Your task to perform on an android device: open app "Mercado Libre" Image 0: 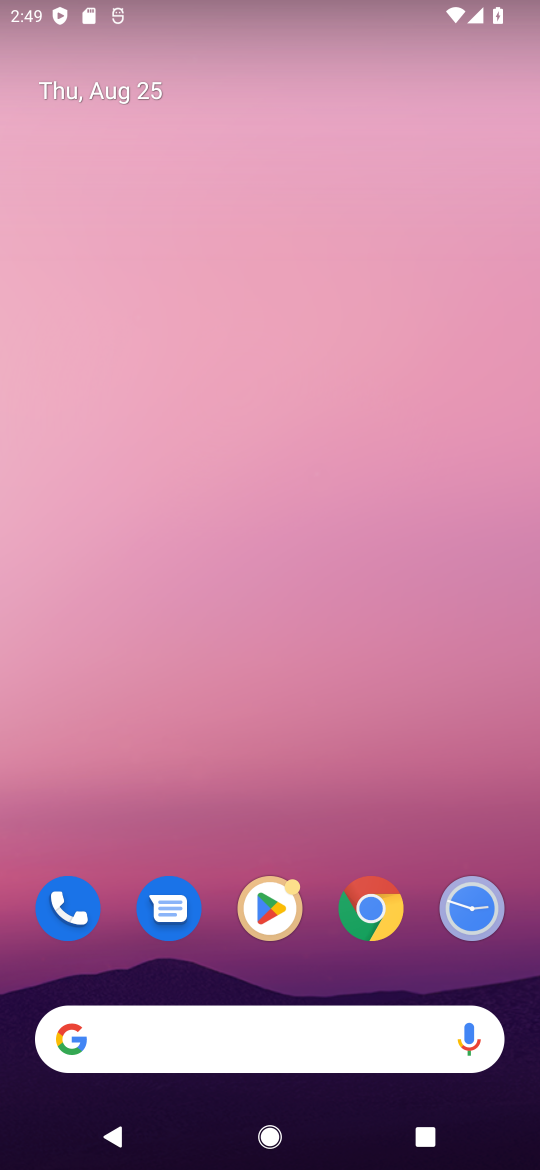
Step 0: click (271, 892)
Your task to perform on an android device: open app "Mercado Libre" Image 1: 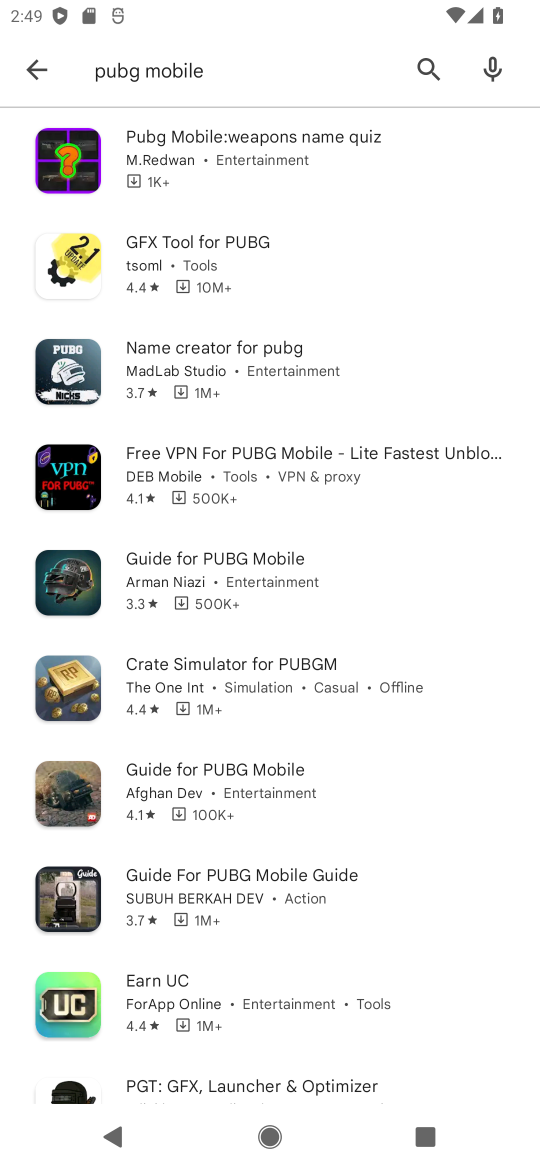
Step 1: click (419, 78)
Your task to perform on an android device: open app "Mercado Libre" Image 2: 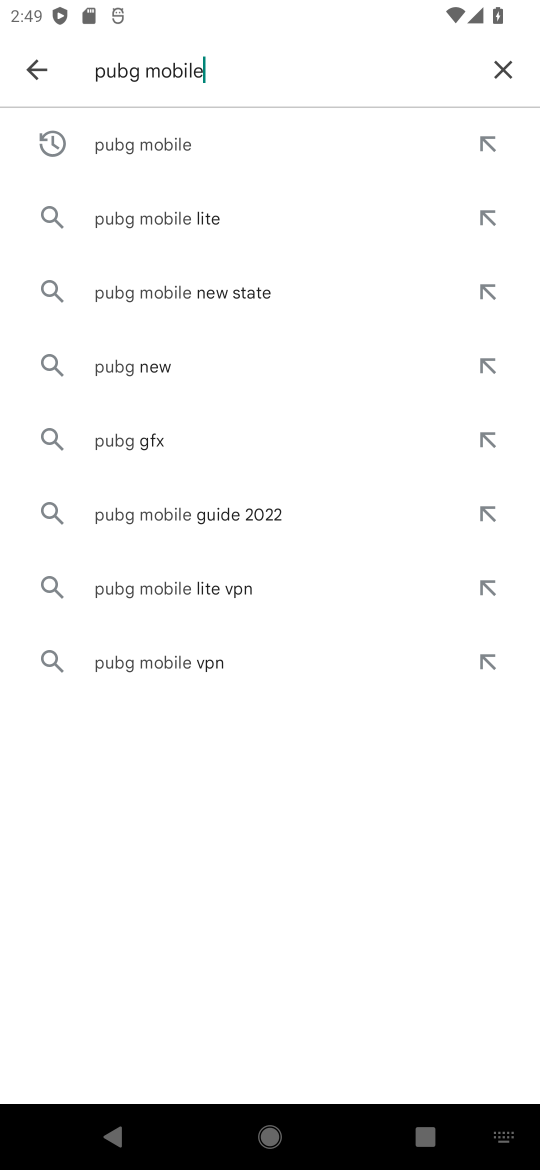
Step 2: click (493, 61)
Your task to perform on an android device: open app "Mercado Libre" Image 3: 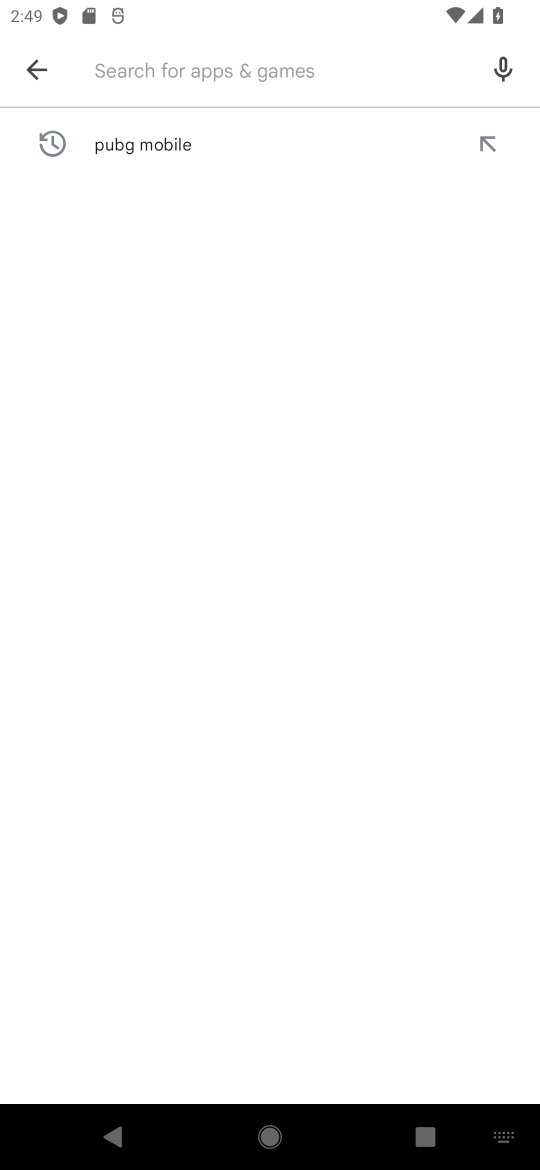
Step 3: type "Mercado Libre"
Your task to perform on an android device: open app "Mercado Libre" Image 4: 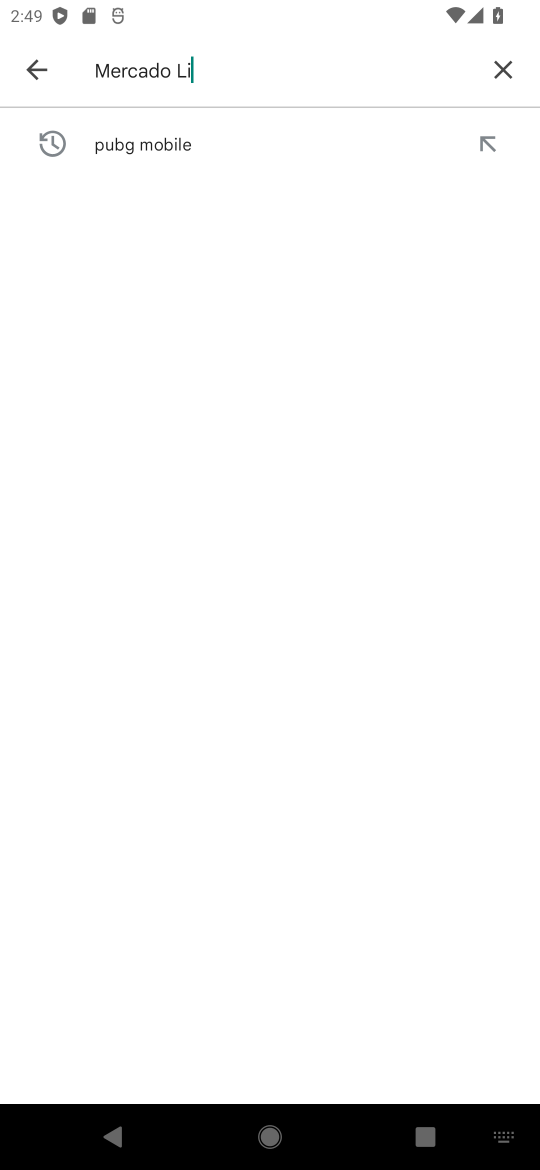
Step 4: type ""
Your task to perform on an android device: open app "Mercado Libre" Image 5: 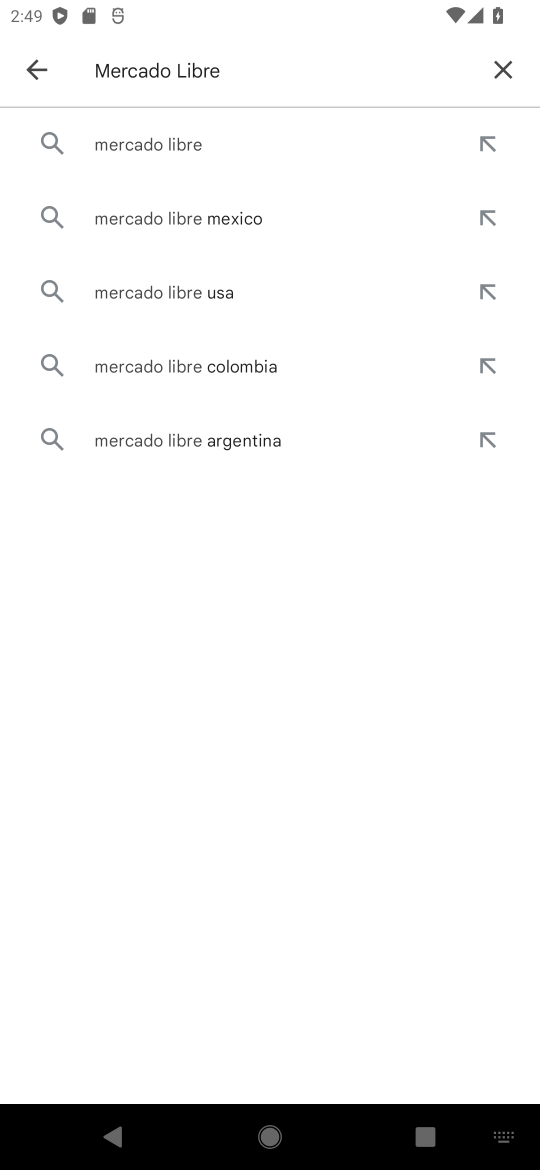
Step 5: click (247, 122)
Your task to perform on an android device: open app "Mercado Libre" Image 6: 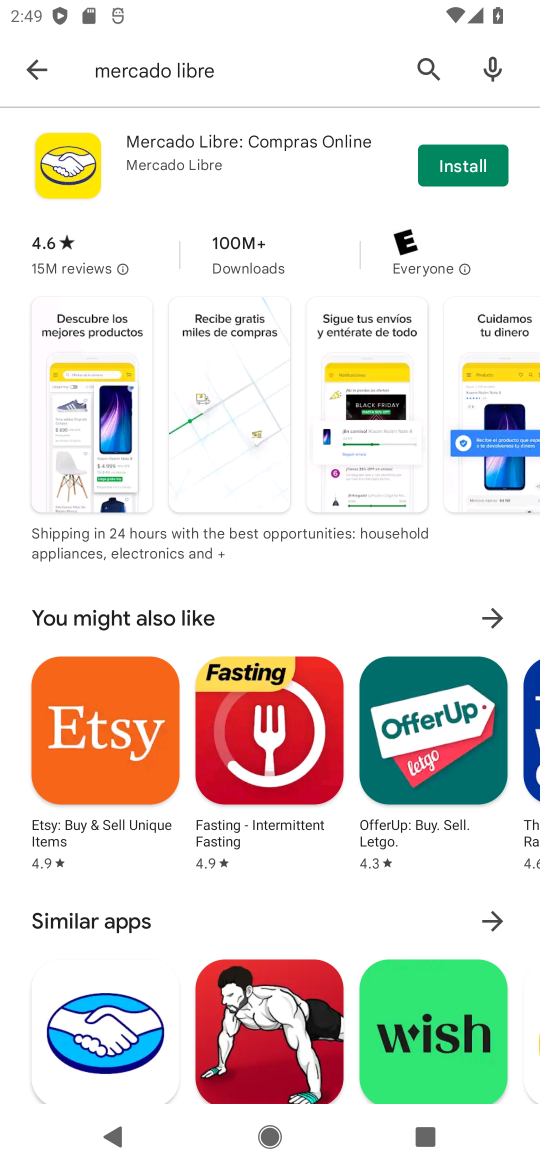
Step 6: task complete